Your task to perform on an android device: View the shopping cart on target.com. Search for "razer blade" on target.com, select the first entry, add it to the cart, then select checkout. Image 0: 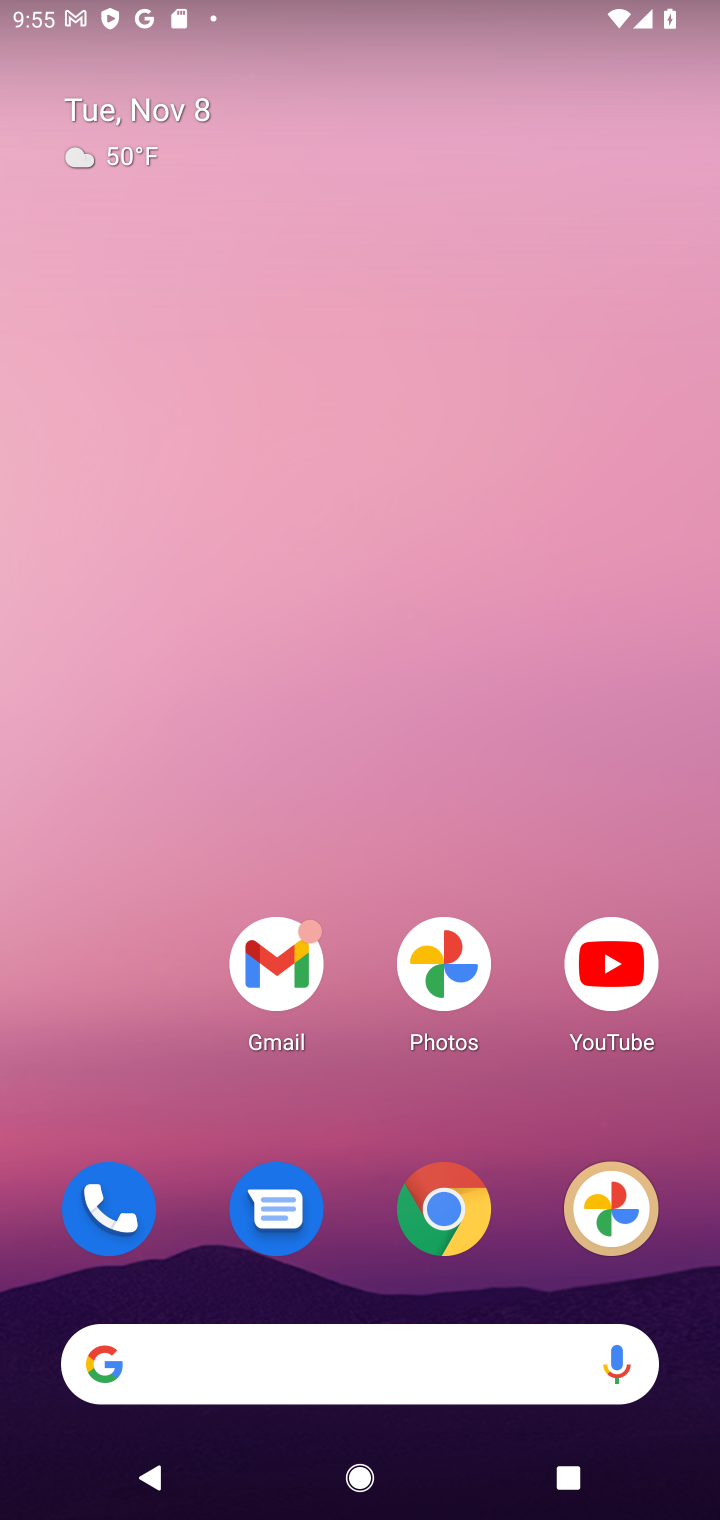
Step 0: click (417, 1214)
Your task to perform on an android device: View the shopping cart on target.com. Search for "razer blade" on target.com, select the first entry, add it to the cart, then select checkout. Image 1: 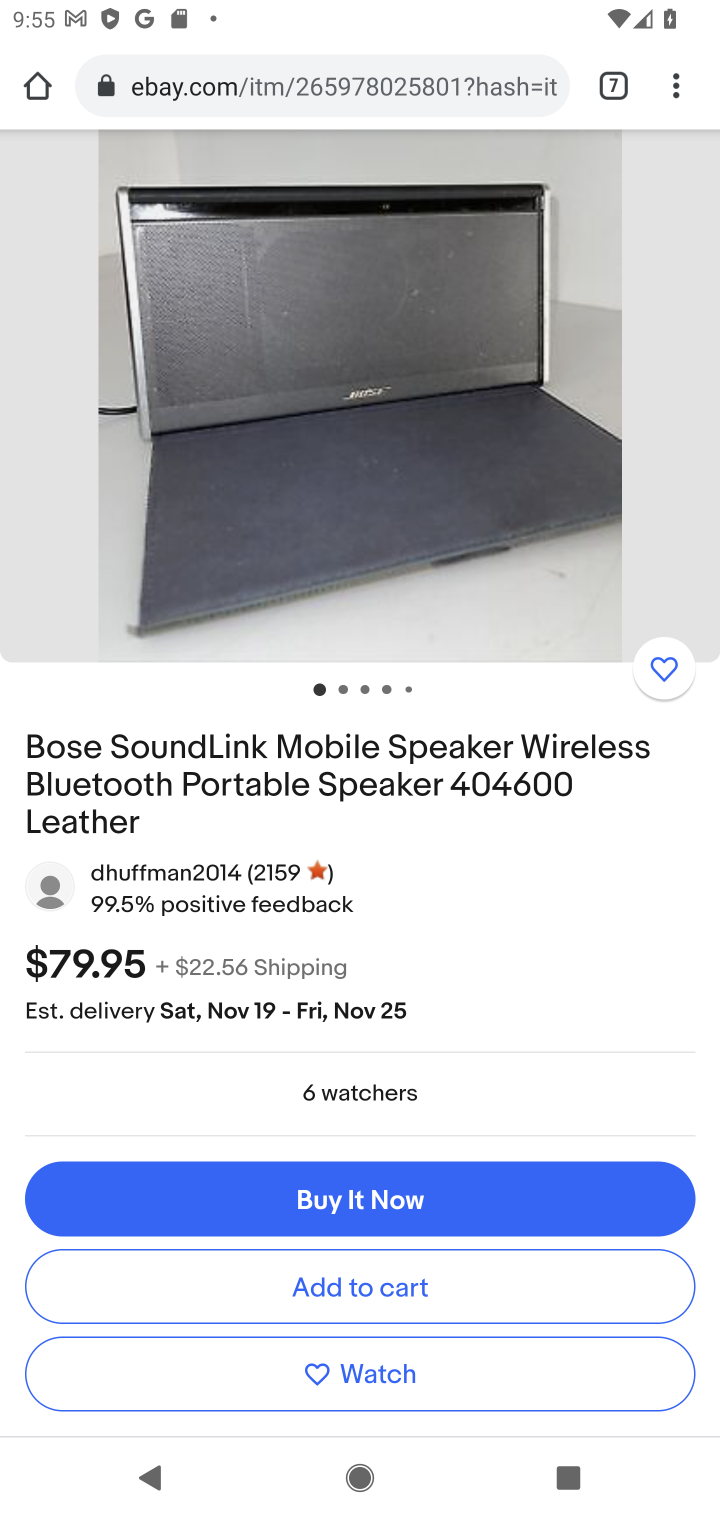
Step 1: click (614, 95)
Your task to perform on an android device: View the shopping cart on target.com. Search for "razer blade" on target.com, select the first entry, add it to the cart, then select checkout. Image 2: 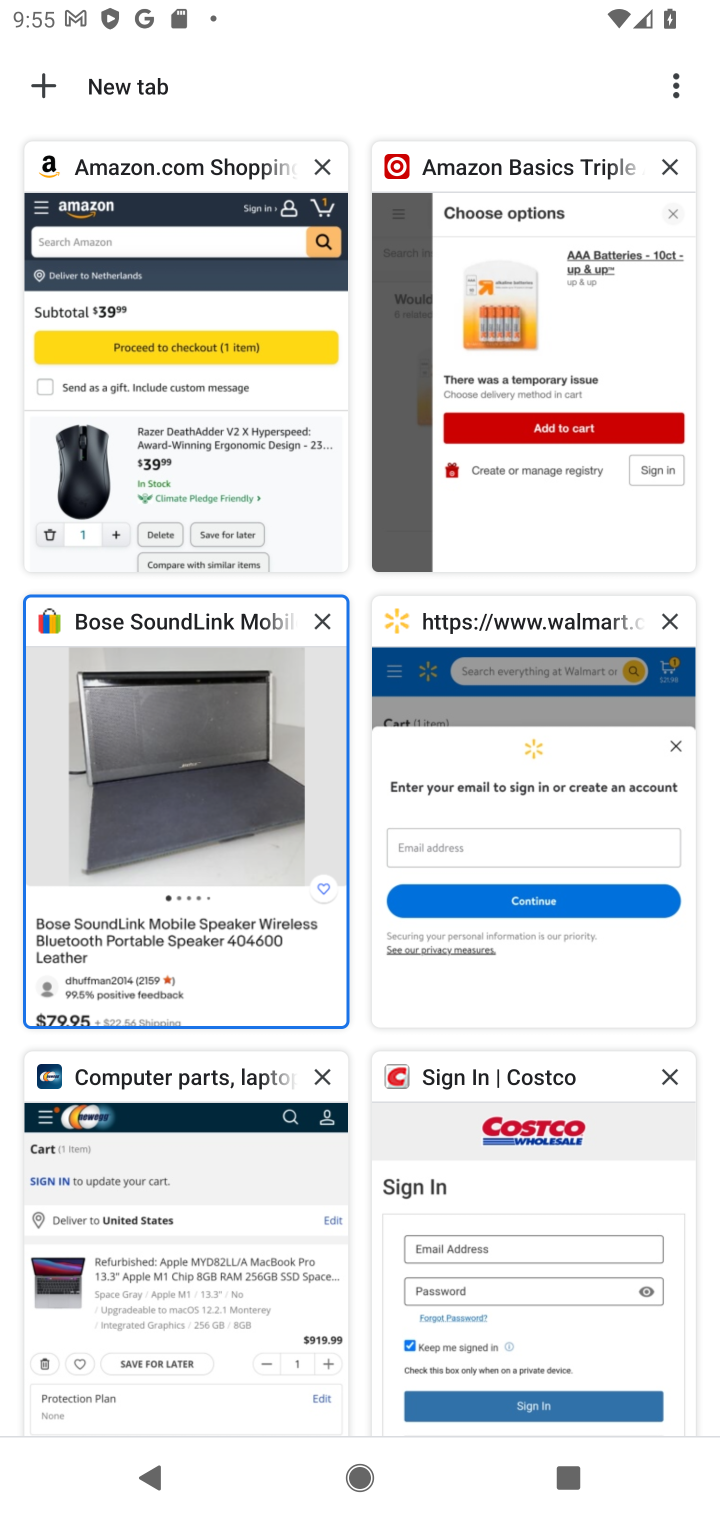
Step 2: click (537, 325)
Your task to perform on an android device: View the shopping cart on target.com. Search for "razer blade" on target.com, select the first entry, add it to the cart, then select checkout. Image 3: 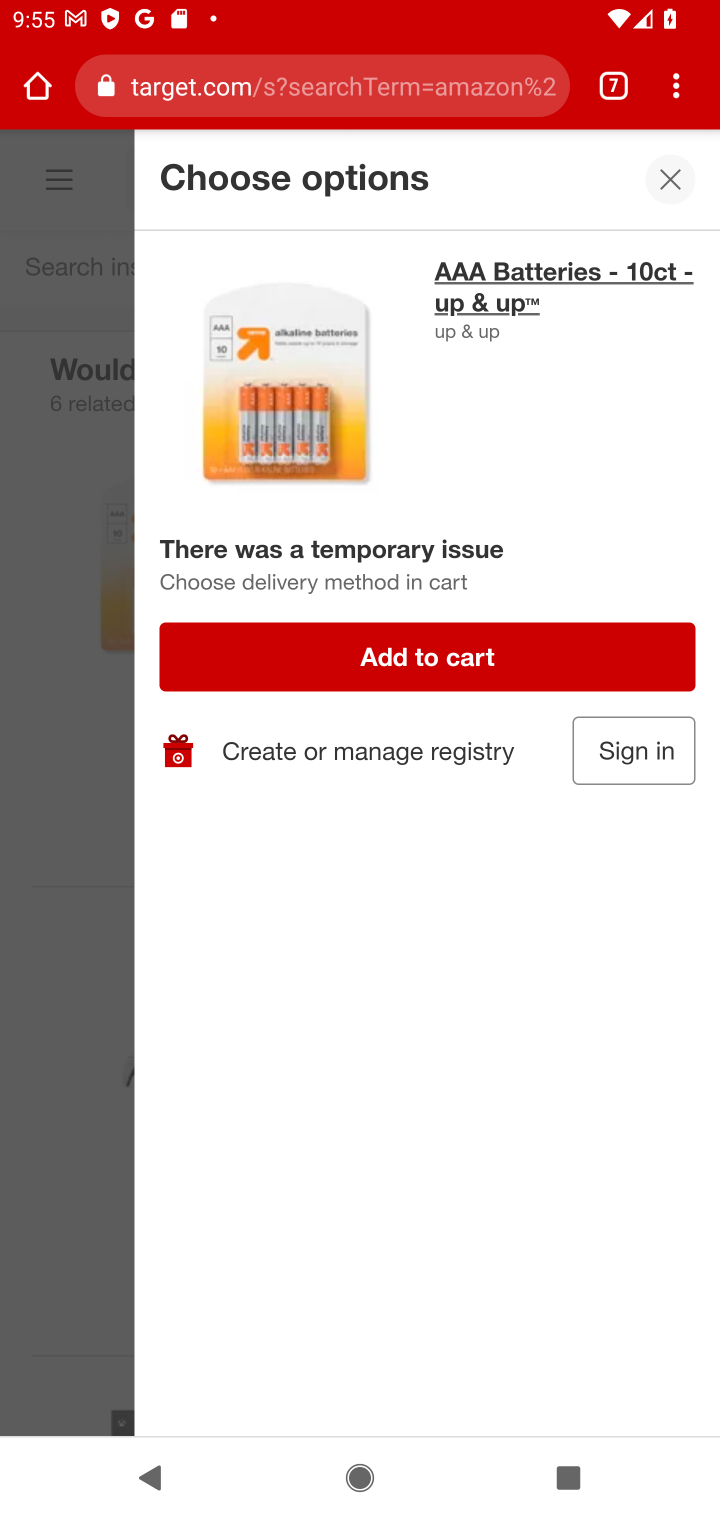
Step 3: click (672, 182)
Your task to perform on an android device: View the shopping cart on target.com. Search for "razer blade" on target.com, select the first entry, add it to the cart, then select checkout. Image 4: 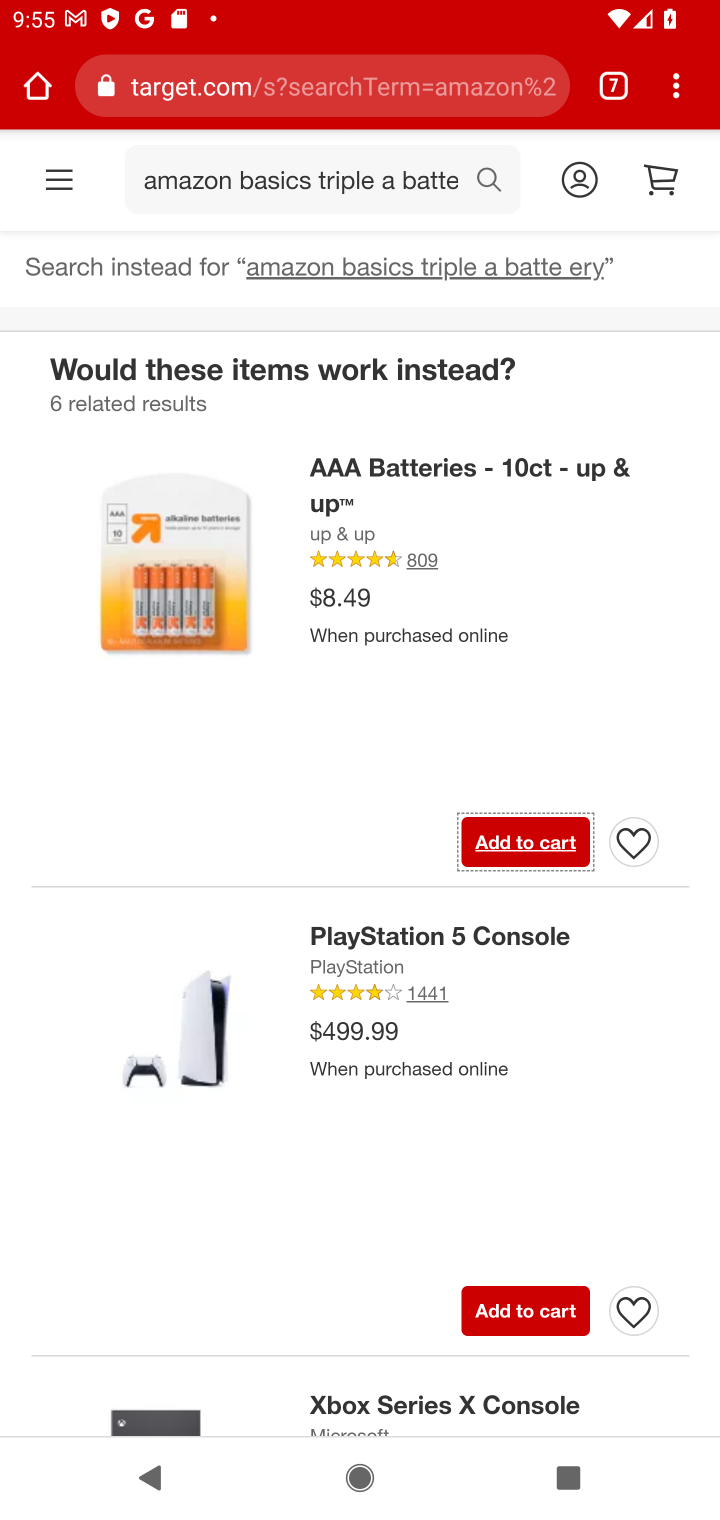
Step 4: click (299, 179)
Your task to perform on an android device: View the shopping cart on target.com. Search for "razer blade" on target.com, select the first entry, add it to the cart, then select checkout. Image 5: 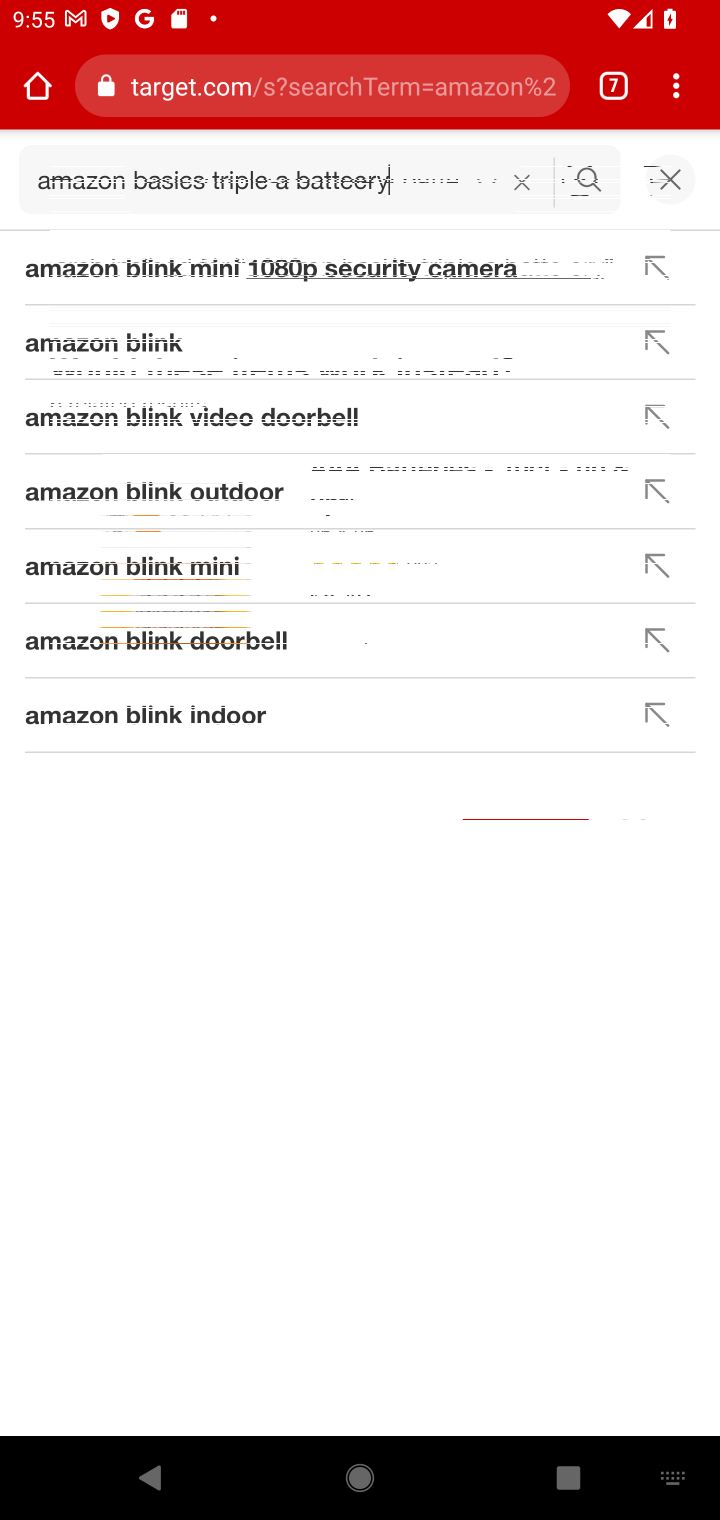
Step 5: click (517, 182)
Your task to perform on an android device: View the shopping cart on target.com. Search for "razer blade" on target.com, select the first entry, add it to the cart, then select checkout. Image 6: 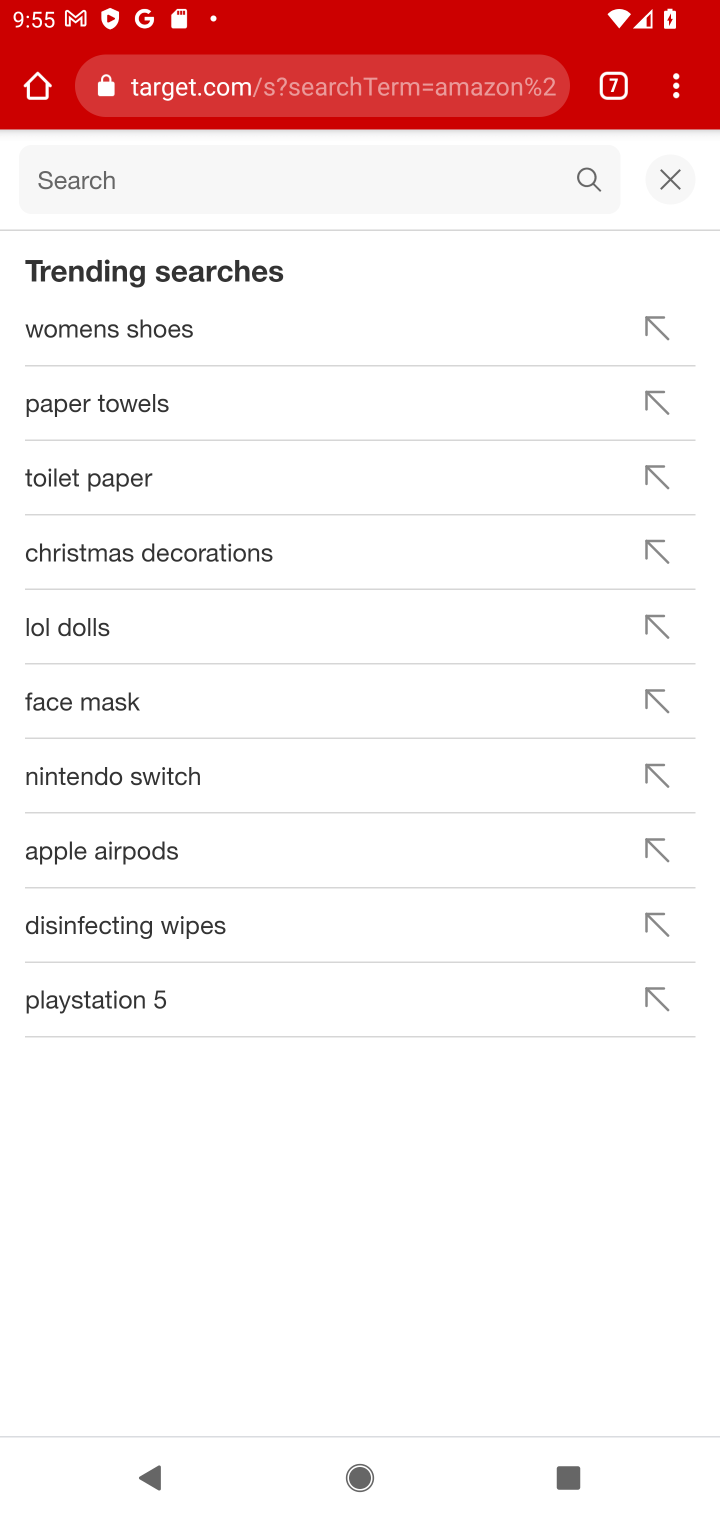
Step 6: type "razer blade"
Your task to perform on an android device: View the shopping cart on target.com. Search for "razer blade" on target.com, select the first entry, add it to the cart, then select checkout. Image 7: 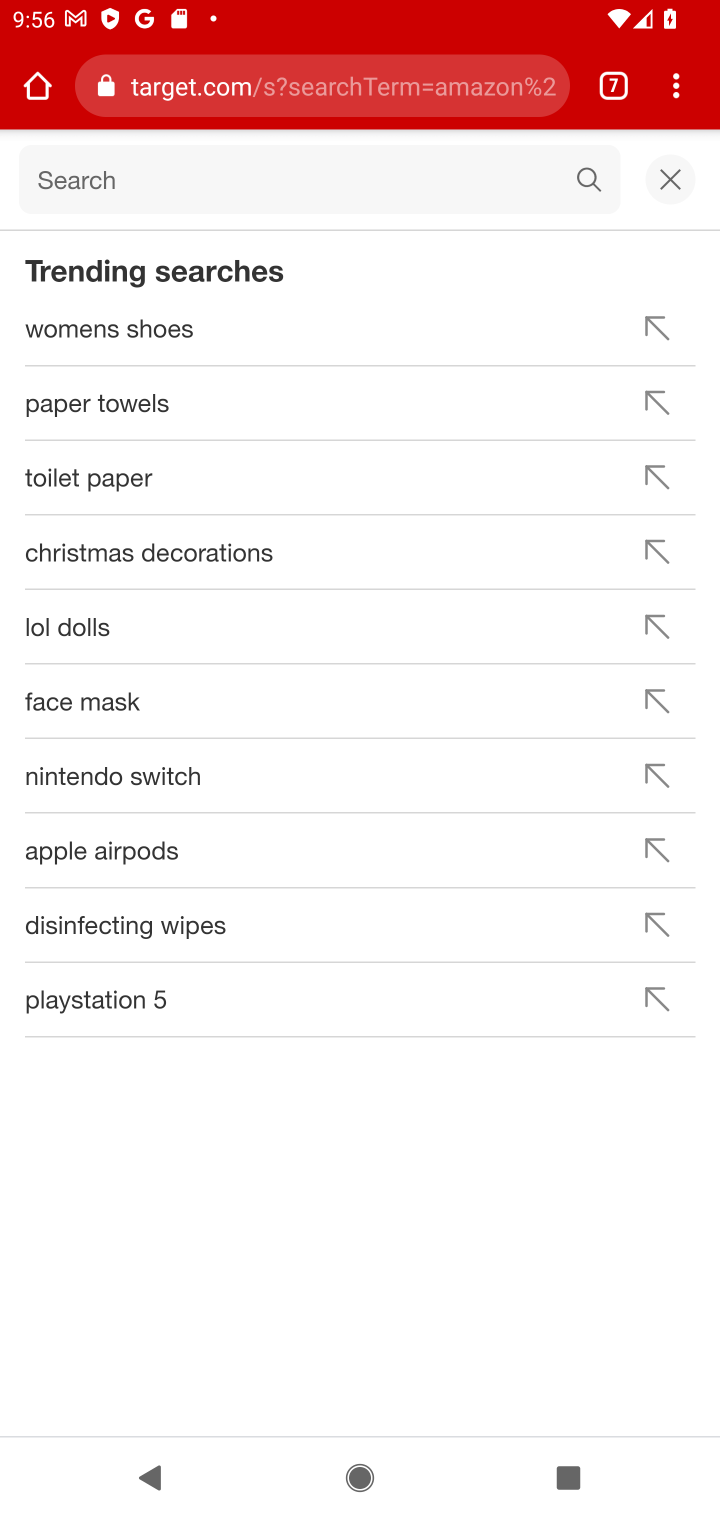
Step 7: click (79, 159)
Your task to perform on an android device: View the shopping cart on target.com. Search for "razer blade" on target.com, select the first entry, add it to the cart, then select checkout. Image 8: 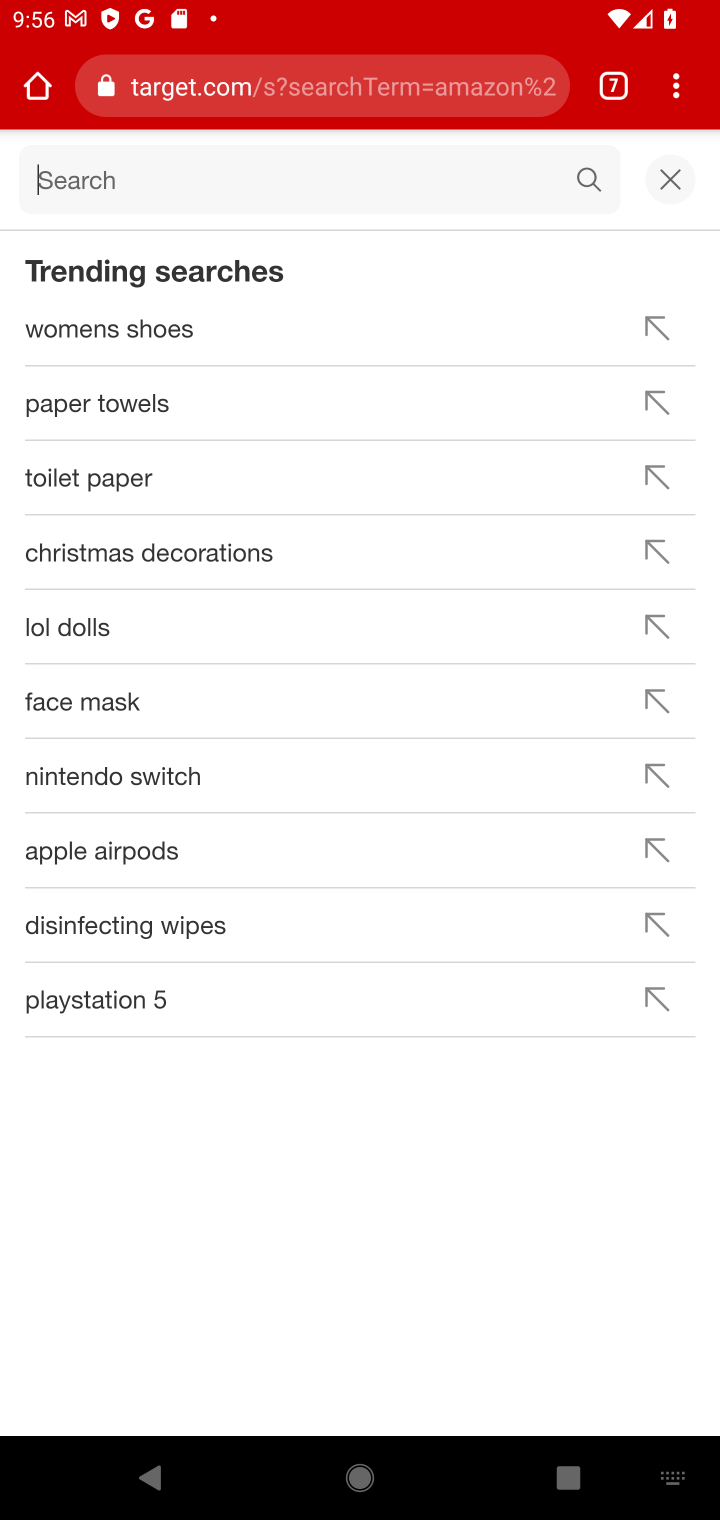
Step 8: type "razer blade"
Your task to perform on an android device: View the shopping cart on target.com. Search for "razer blade" on target.com, select the first entry, add it to the cart, then select checkout. Image 9: 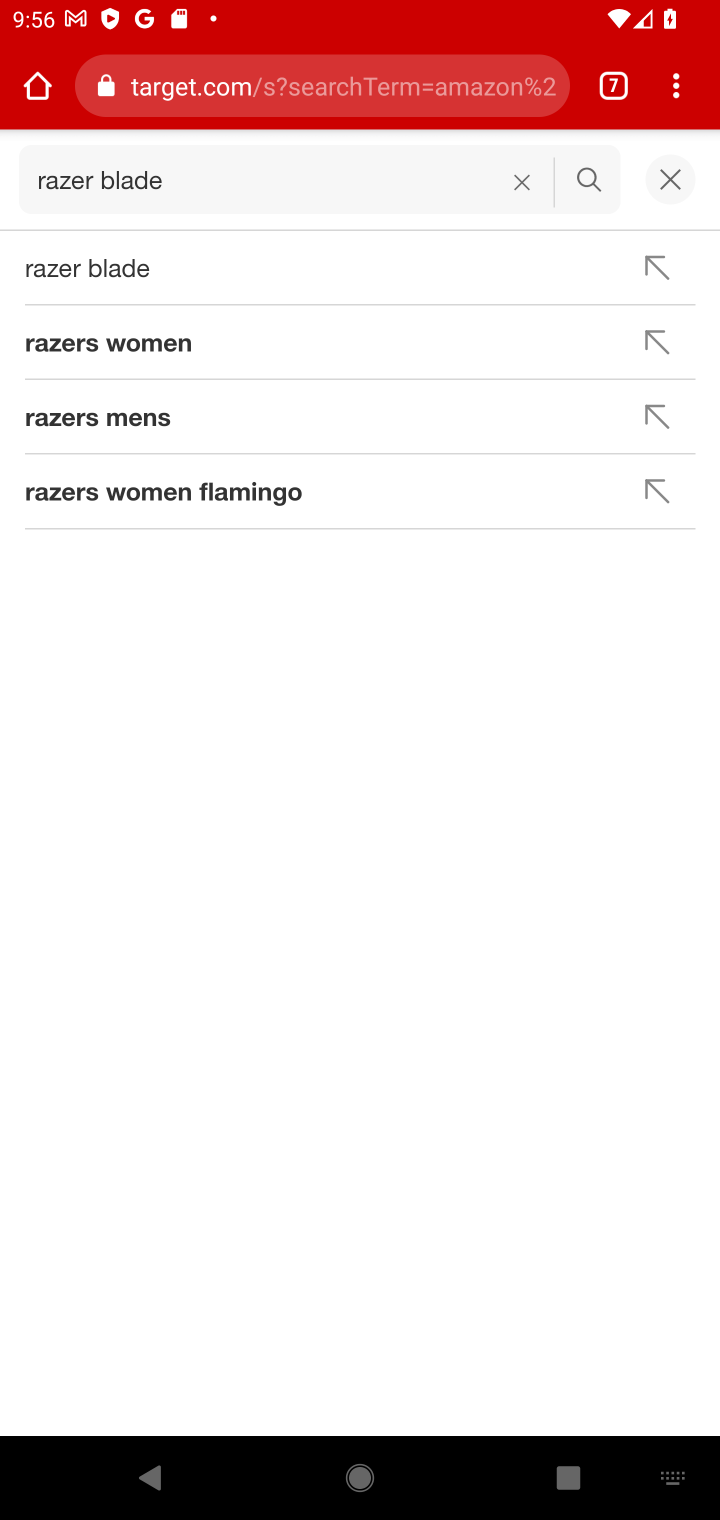
Step 9: click (98, 259)
Your task to perform on an android device: View the shopping cart on target.com. Search for "razer blade" on target.com, select the first entry, add it to the cart, then select checkout. Image 10: 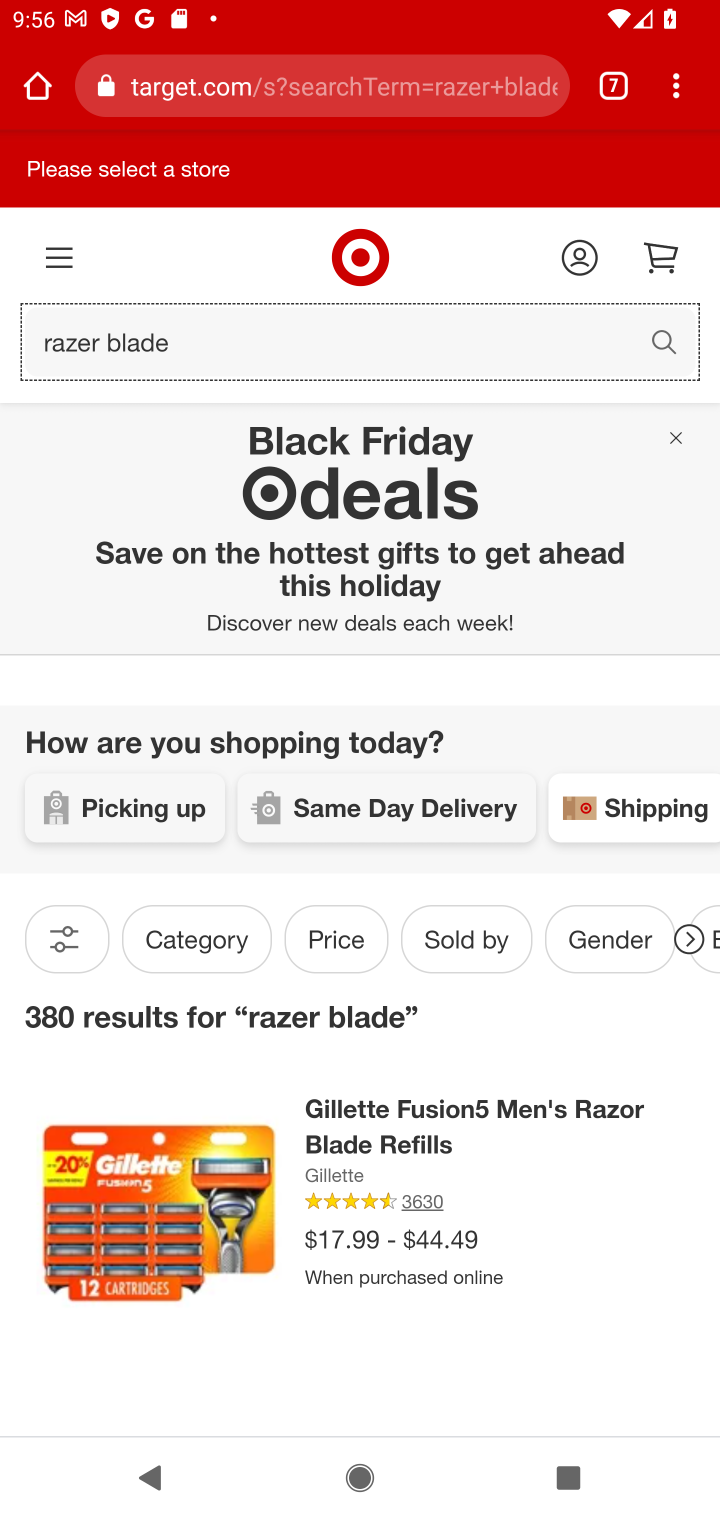
Step 10: drag from (492, 1206) to (597, 683)
Your task to perform on an android device: View the shopping cart on target.com. Search for "razer blade" on target.com, select the first entry, add it to the cart, then select checkout. Image 11: 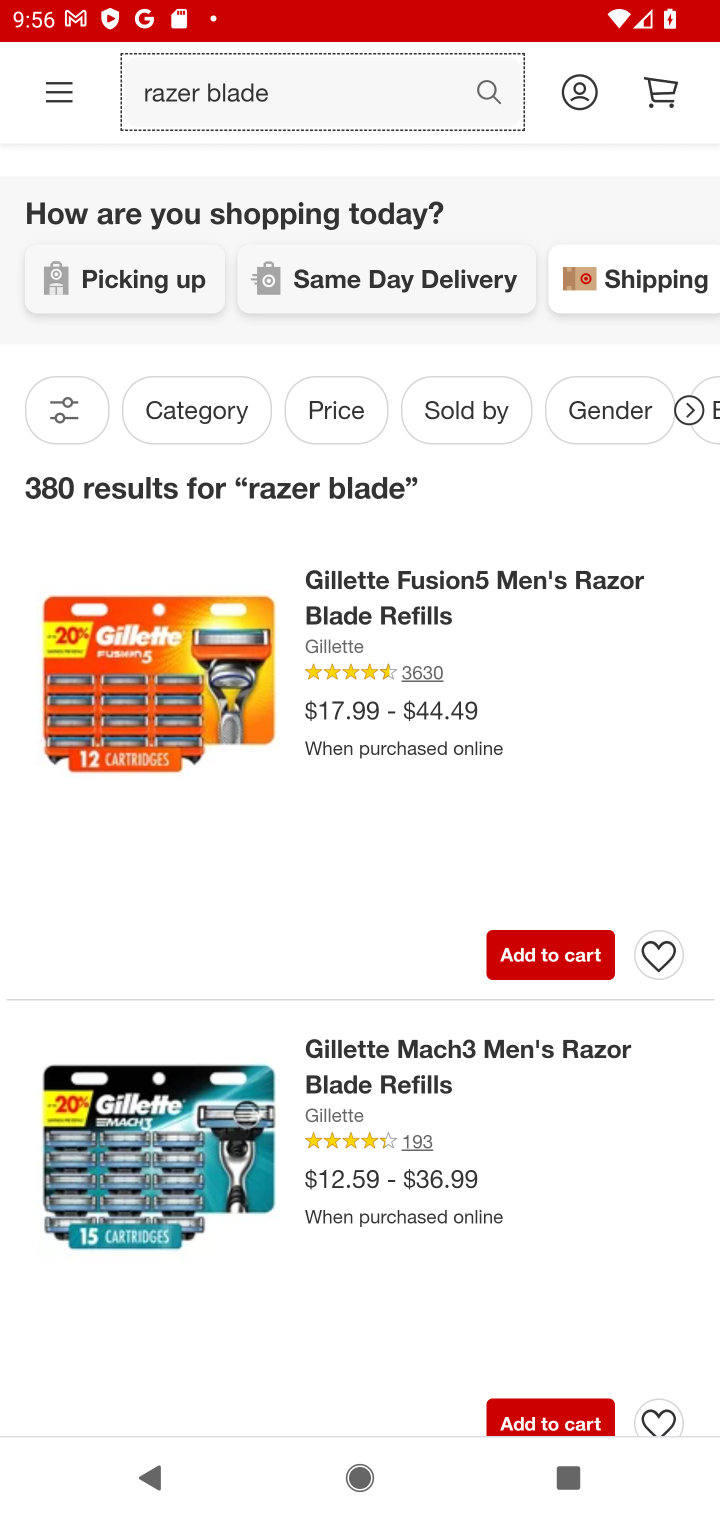
Step 11: click (582, 956)
Your task to perform on an android device: View the shopping cart on target.com. Search for "razer blade" on target.com, select the first entry, add it to the cart, then select checkout. Image 12: 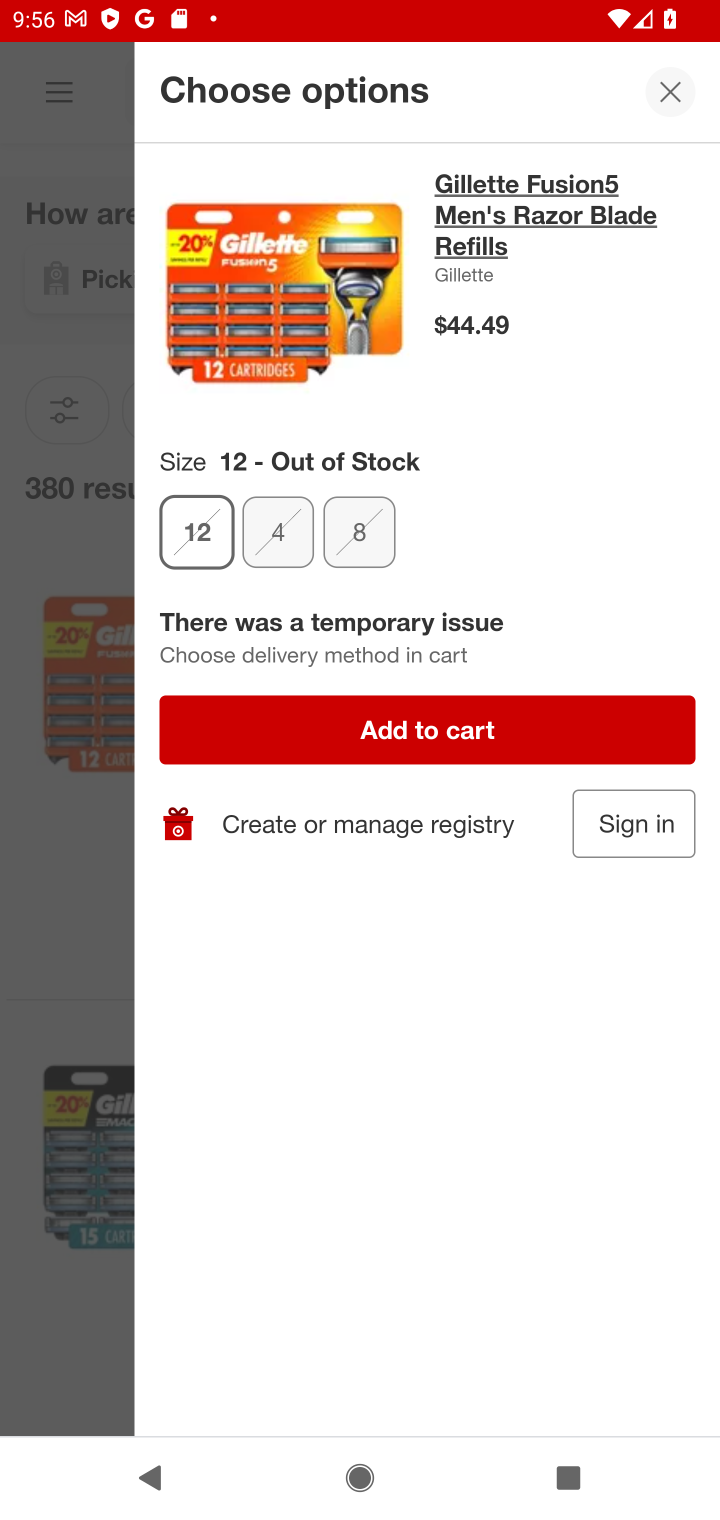
Step 12: click (592, 731)
Your task to perform on an android device: View the shopping cart on target.com. Search for "razer blade" on target.com, select the first entry, add it to the cart, then select checkout. Image 13: 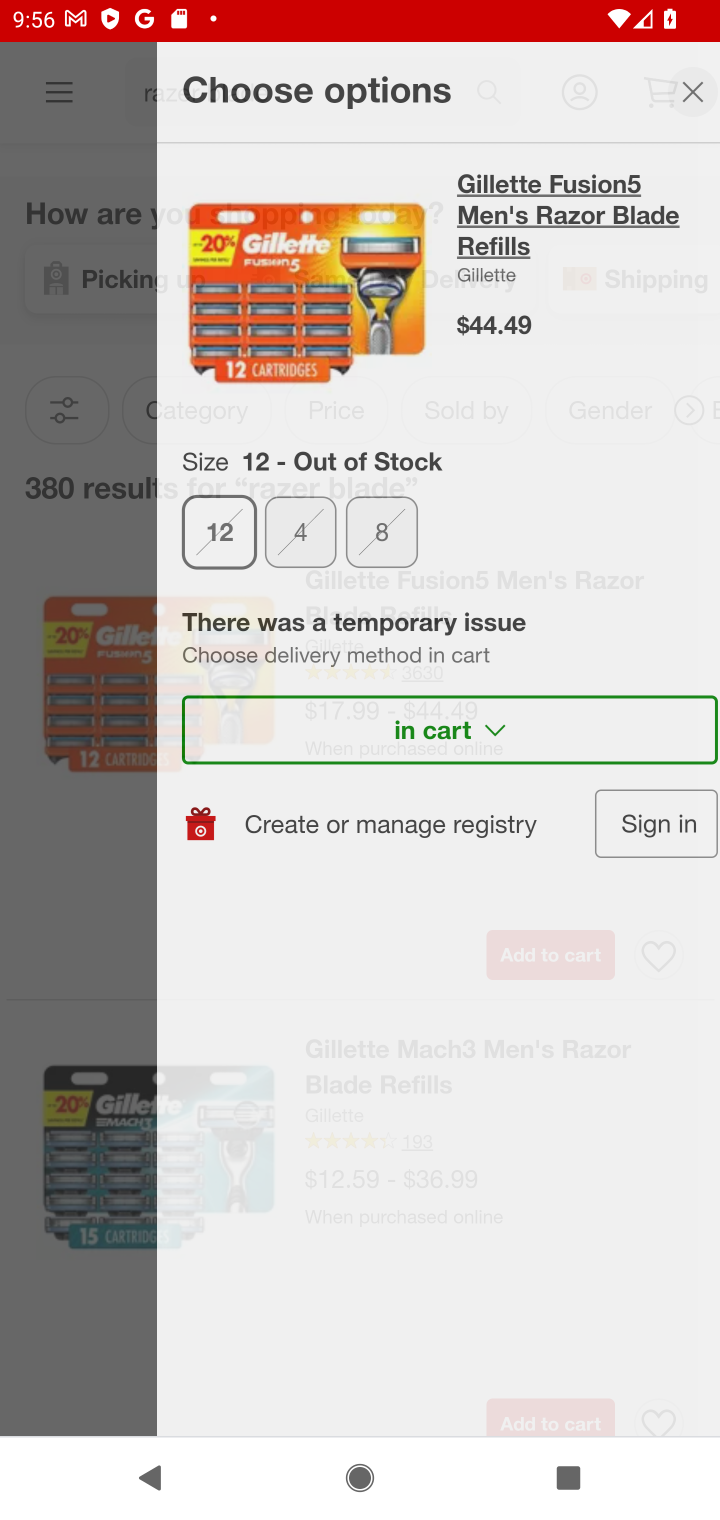
Step 13: task complete